Your task to perform on an android device: turn notification dots off Image 0: 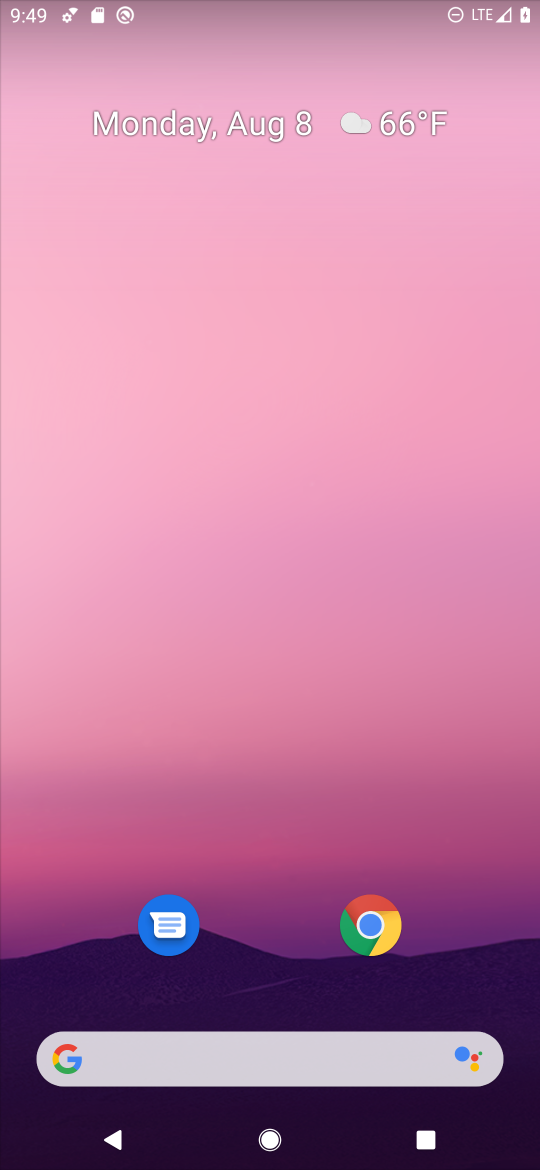
Step 0: press home button
Your task to perform on an android device: turn notification dots off Image 1: 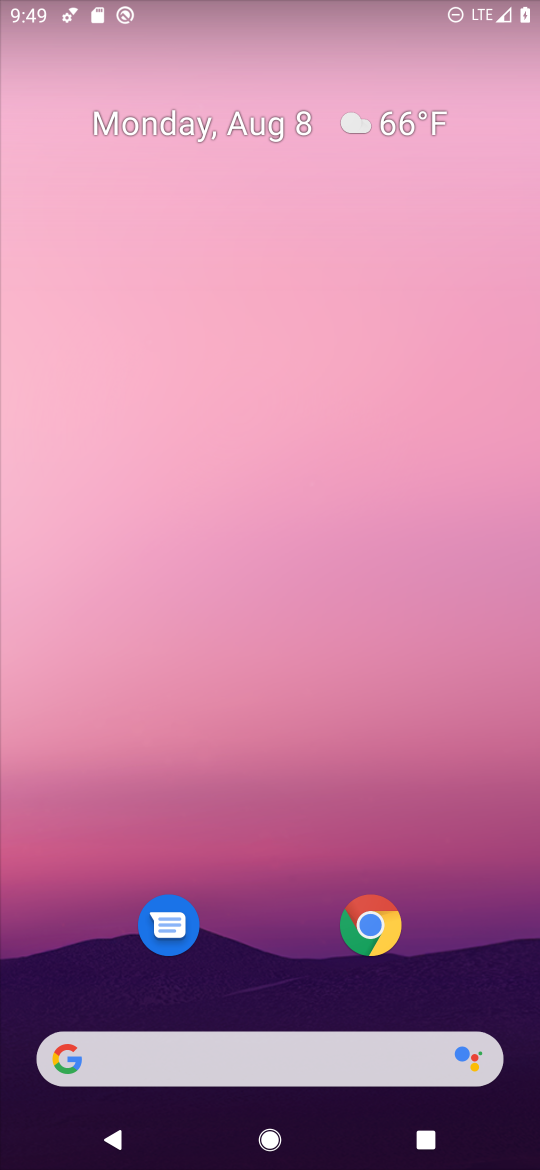
Step 1: drag from (251, 931) to (258, 206)
Your task to perform on an android device: turn notification dots off Image 2: 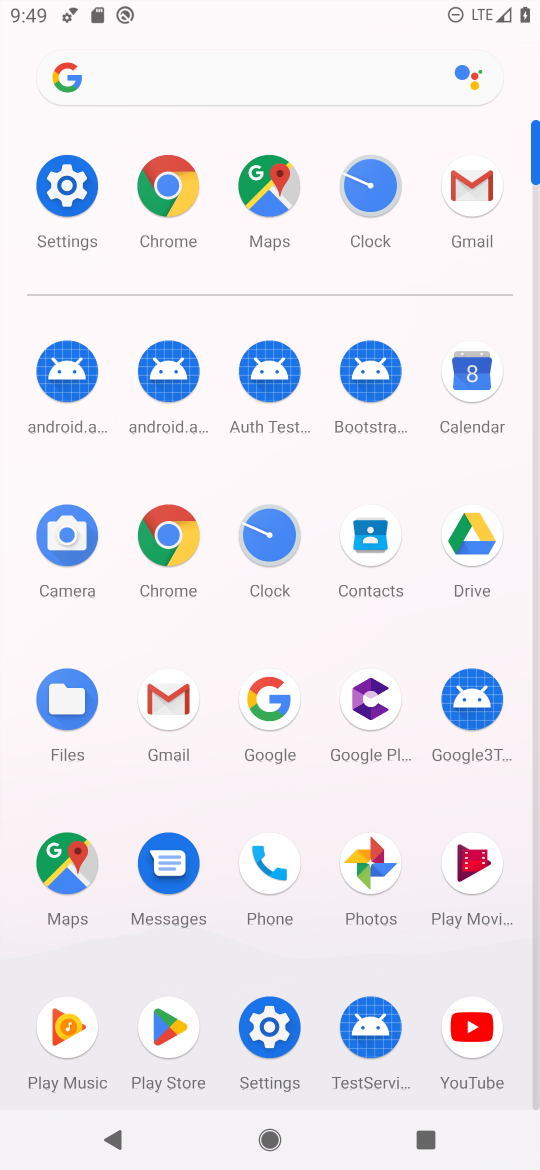
Step 2: click (267, 1032)
Your task to perform on an android device: turn notification dots off Image 3: 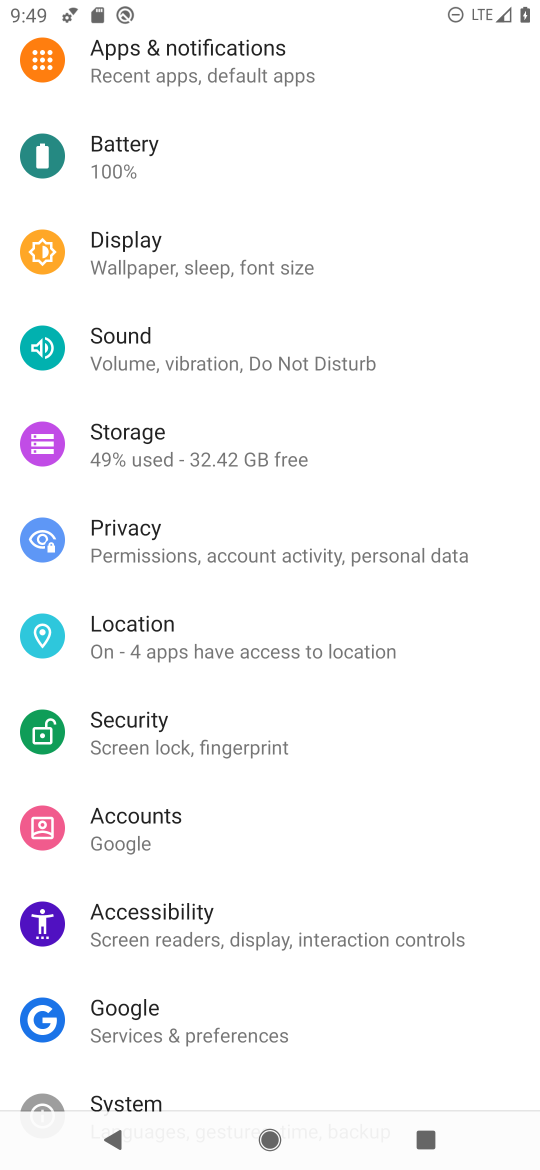
Step 3: click (249, 65)
Your task to perform on an android device: turn notification dots off Image 4: 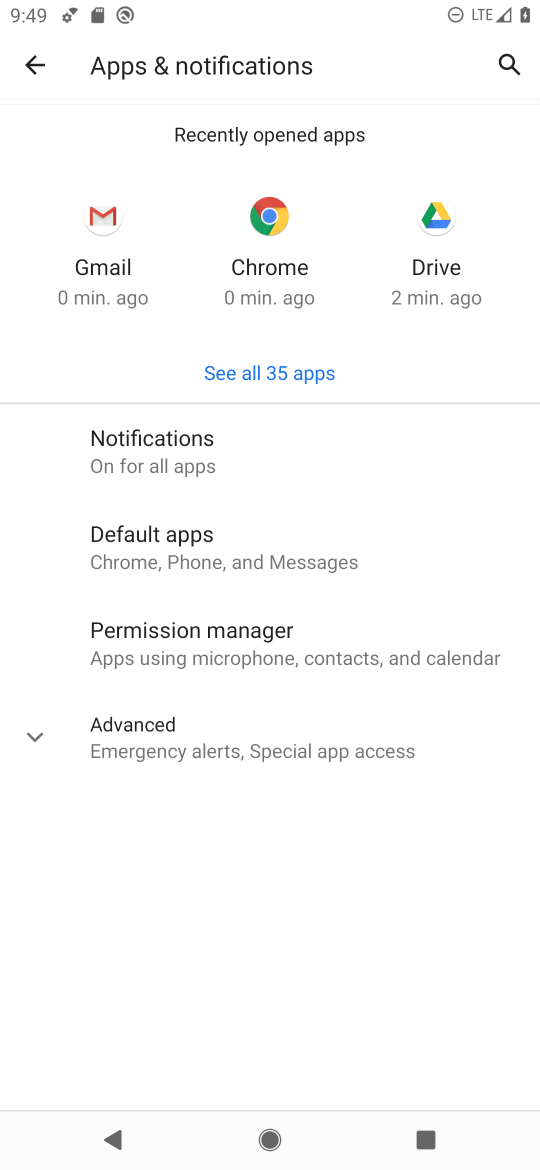
Step 4: click (139, 450)
Your task to perform on an android device: turn notification dots off Image 5: 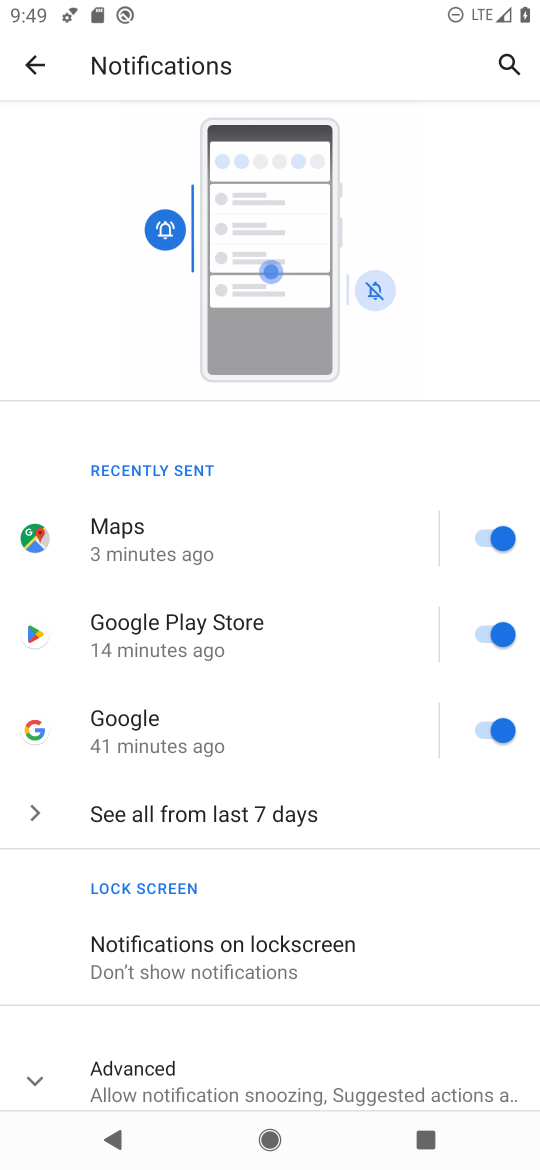
Step 5: drag from (346, 966) to (376, 291)
Your task to perform on an android device: turn notification dots off Image 6: 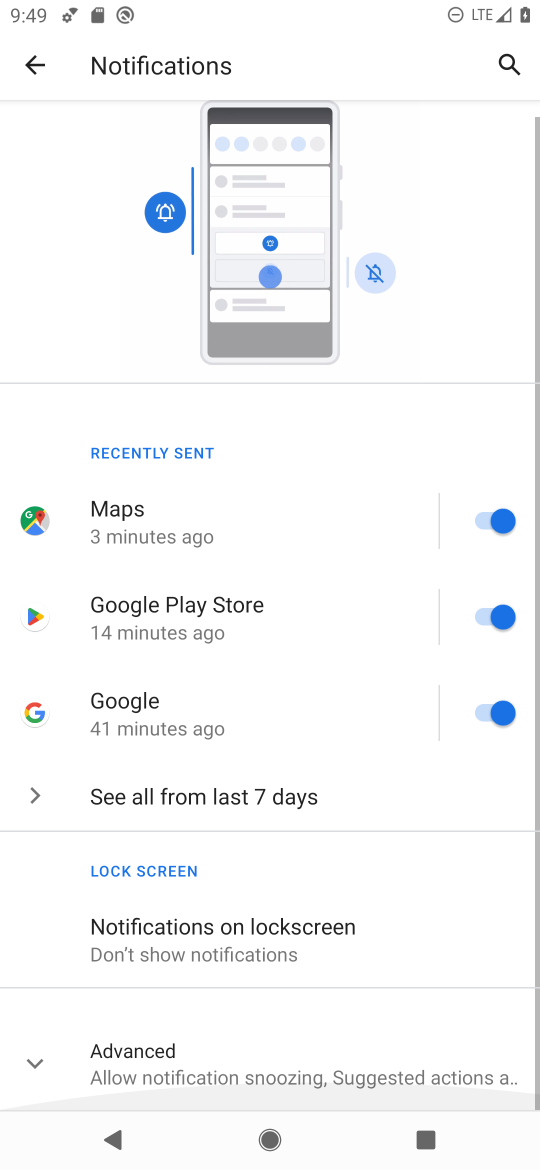
Step 6: click (225, 1052)
Your task to perform on an android device: turn notification dots off Image 7: 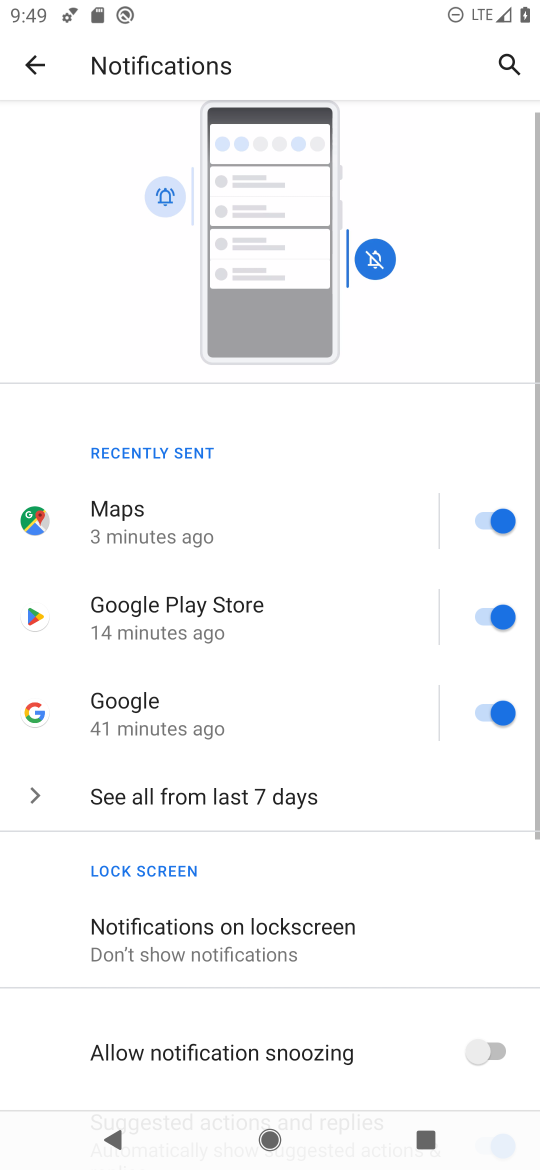
Step 7: drag from (402, 1022) to (434, 303)
Your task to perform on an android device: turn notification dots off Image 8: 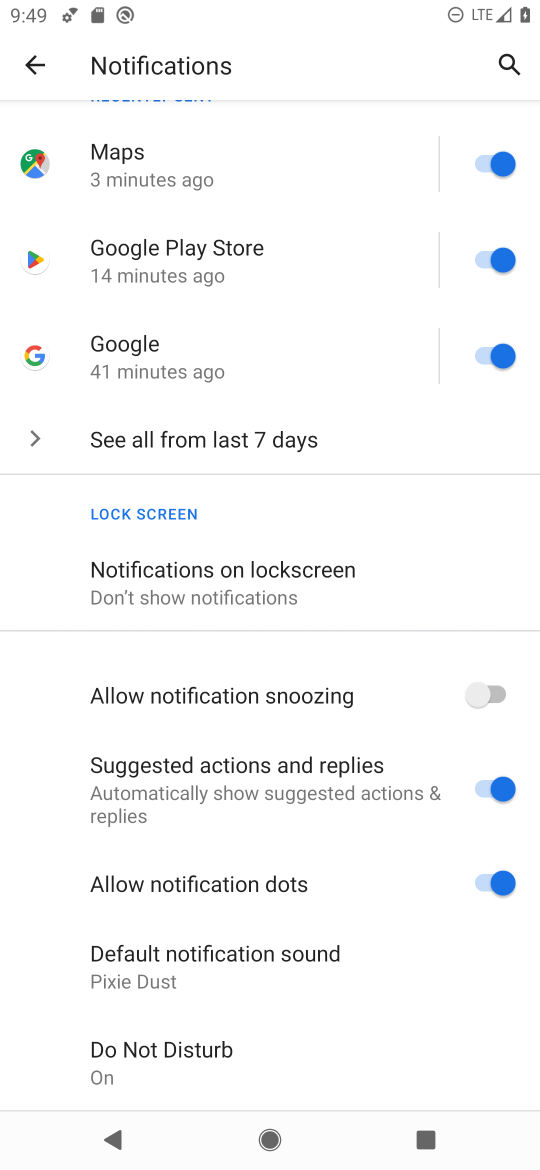
Step 8: click (503, 876)
Your task to perform on an android device: turn notification dots off Image 9: 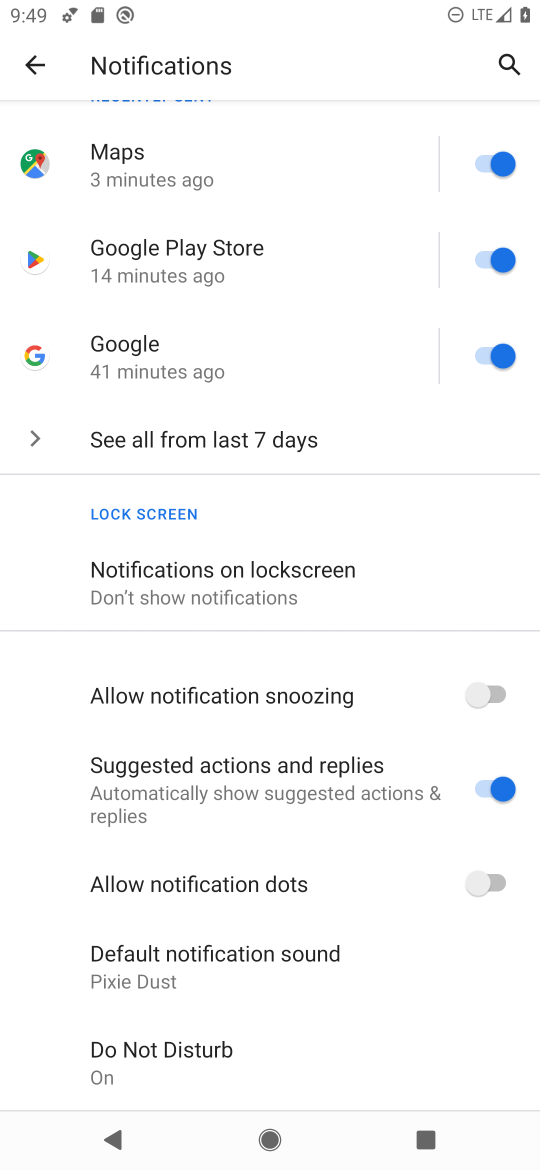
Step 9: task complete